Your task to perform on an android device: Open the stopwatch Image 0: 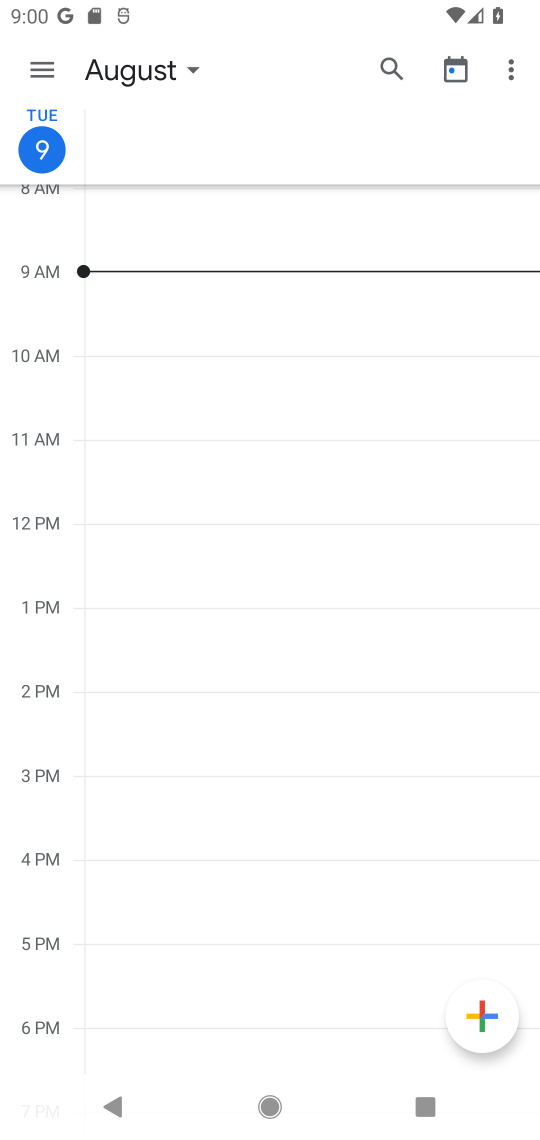
Step 0: press home button
Your task to perform on an android device: Open the stopwatch Image 1: 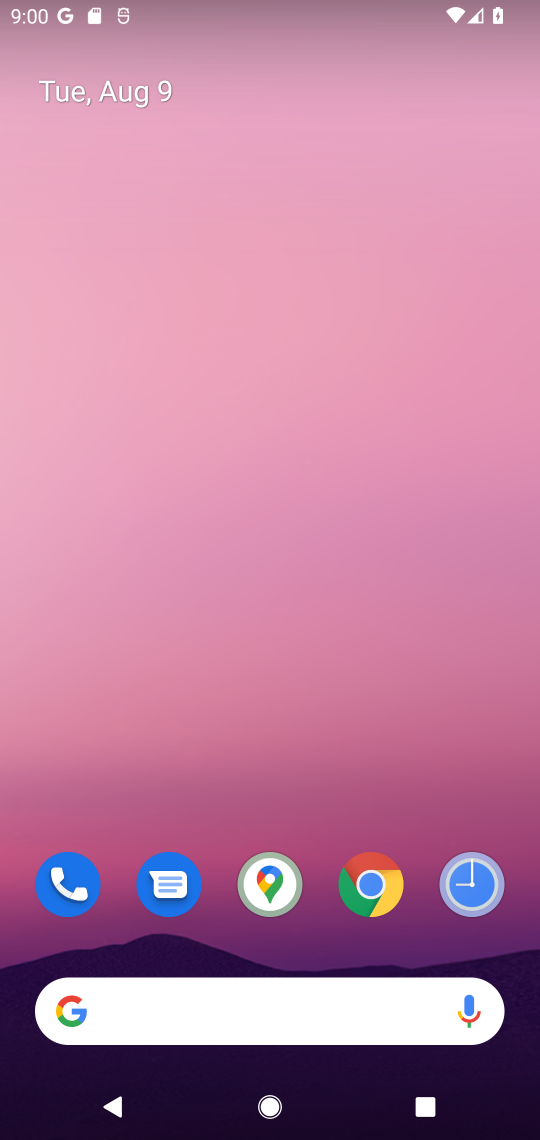
Step 1: drag from (250, 931) to (257, 280)
Your task to perform on an android device: Open the stopwatch Image 2: 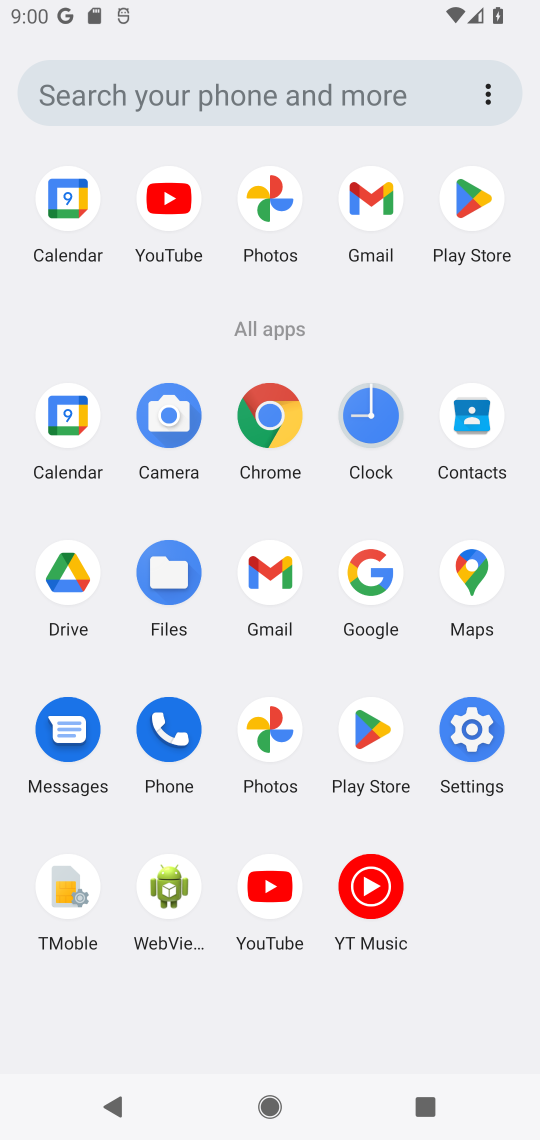
Step 2: click (384, 414)
Your task to perform on an android device: Open the stopwatch Image 3: 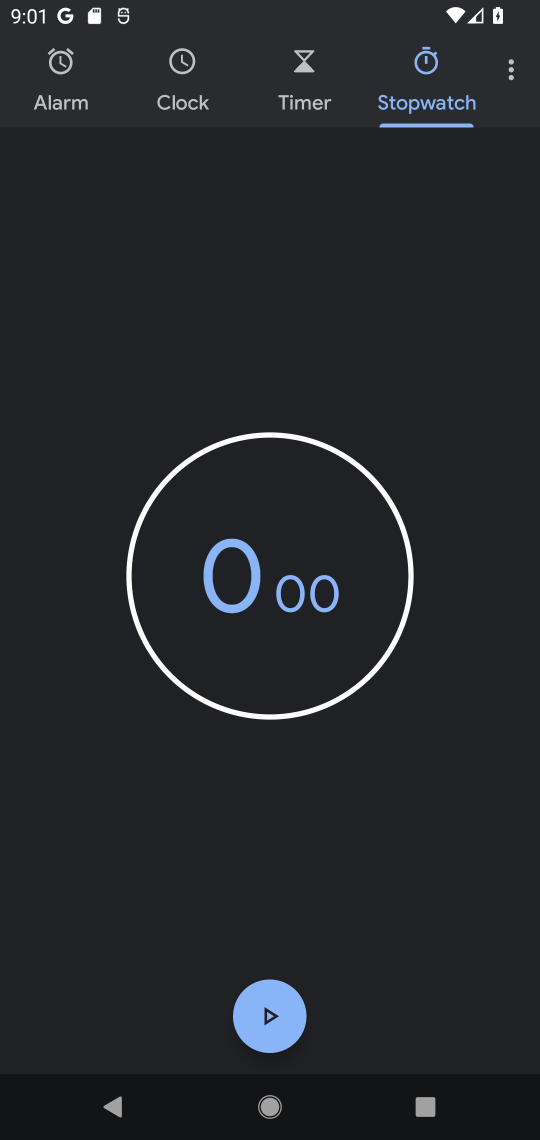
Step 3: task complete